Your task to perform on an android device: turn off translation in the chrome app Image 0: 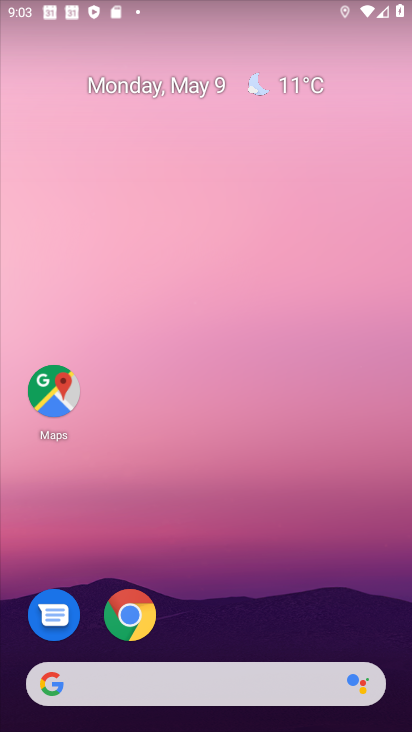
Step 0: drag from (283, 576) to (251, 33)
Your task to perform on an android device: turn off translation in the chrome app Image 1: 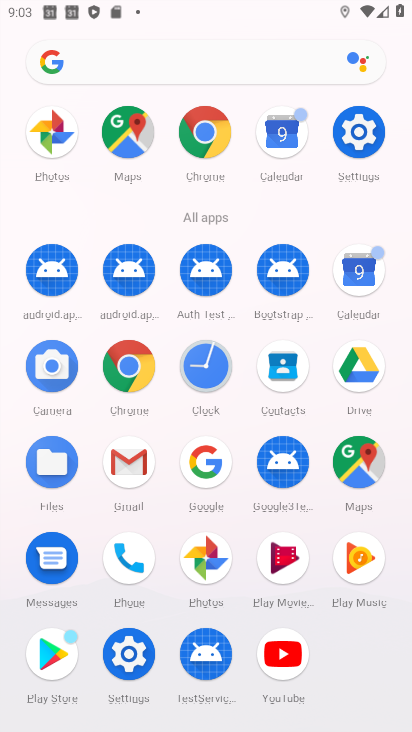
Step 1: click (121, 362)
Your task to perform on an android device: turn off translation in the chrome app Image 2: 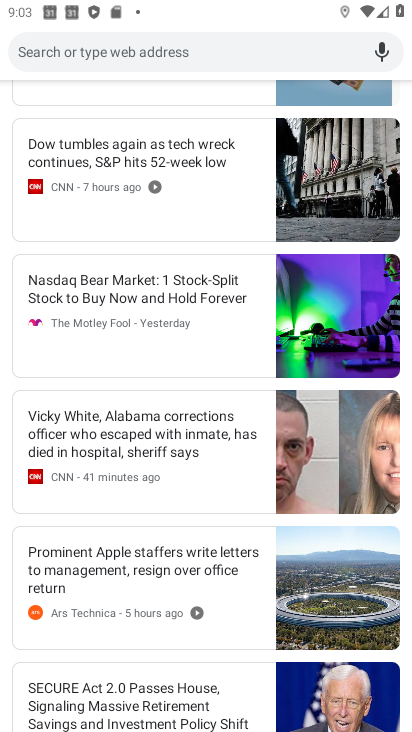
Step 2: drag from (173, 232) to (174, 535)
Your task to perform on an android device: turn off translation in the chrome app Image 3: 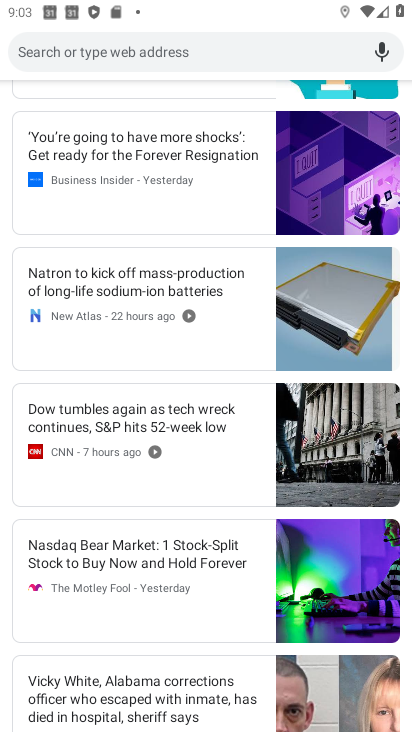
Step 3: drag from (153, 492) to (161, 150)
Your task to perform on an android device: turn off translation in the chrome app Image 4: 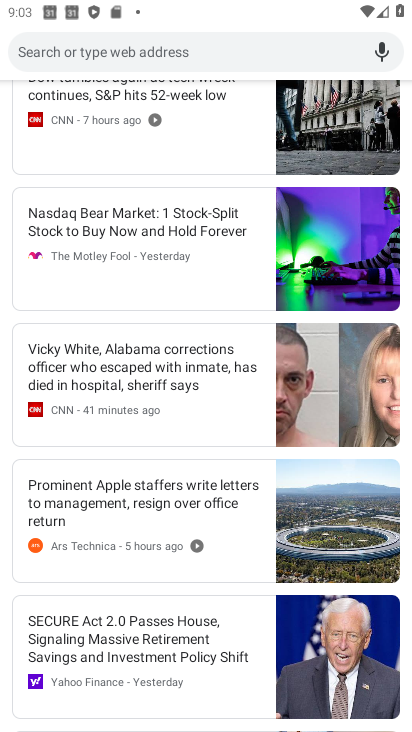
Step 4: drag from (182, 108) to (173, 600)
Your task to perform on an android device: turn off translation in the chrome app Image 5: 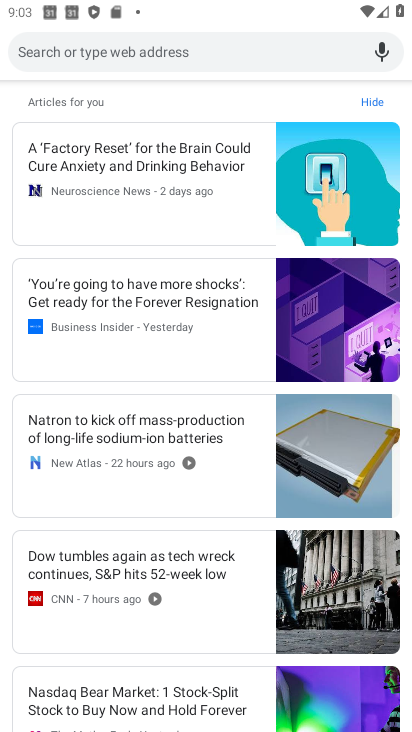
Step 5: drag from (152, 163) to (184, 609)
Your task to perform on an android device: turn off translation in the chrome app Image 6: 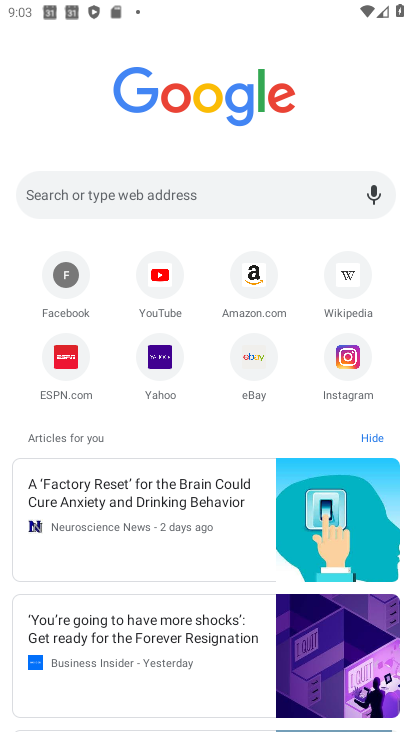
Step 6: drag from (311, 102) to (286, 527)
Your task to perform on an android device: turn off translation in the chrome app Image 7: 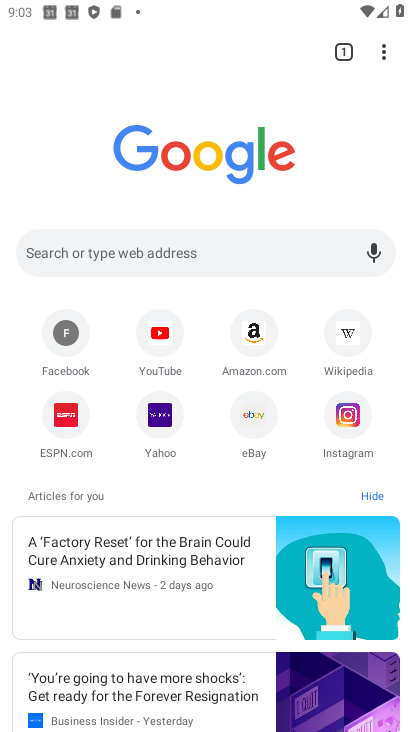
Step 7: drag from (384, 46) to (217, 442)
Your task to perform on an android device: turn off translation in the chrome app Image 8: 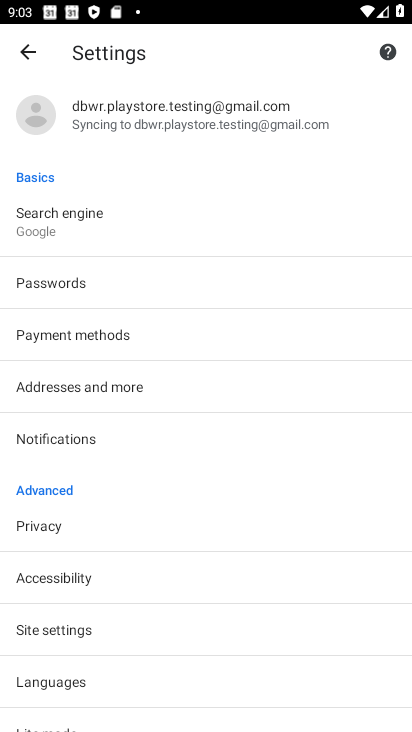
Step 8: drag from (214, 571) to (194, 224)
Your task to perform on an android device: turn off translation in the chrome app Image 9: 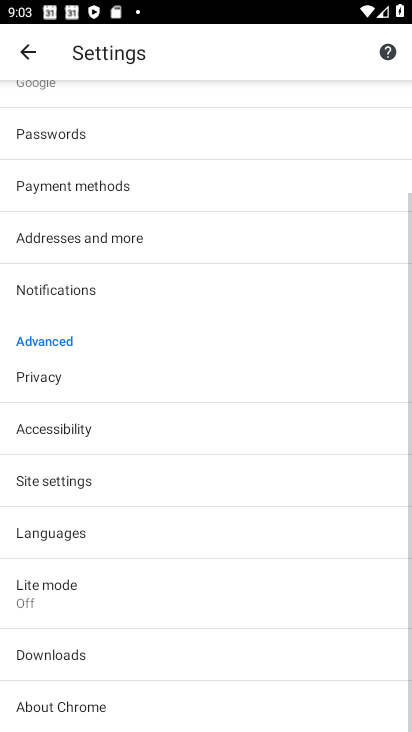
Step 9: click (89, 539)
Your task to perform on an android device: turn off translation in the chrome app Image 10: 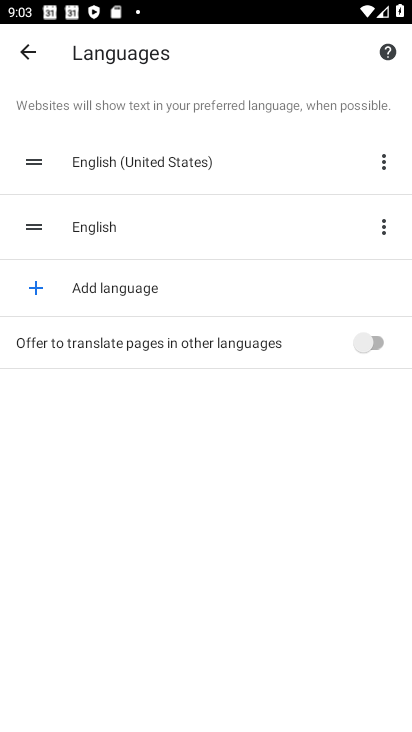
Step 10: task complete